Your task to perform on an android device: Open my contact list Image 0: 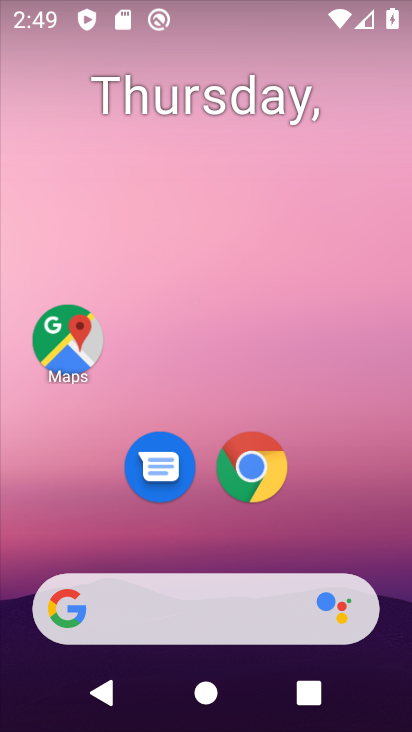
Step 0: drag from (227, 622) to (152, 155)
Your task to perform on an android device: Open my contact list Image 1: 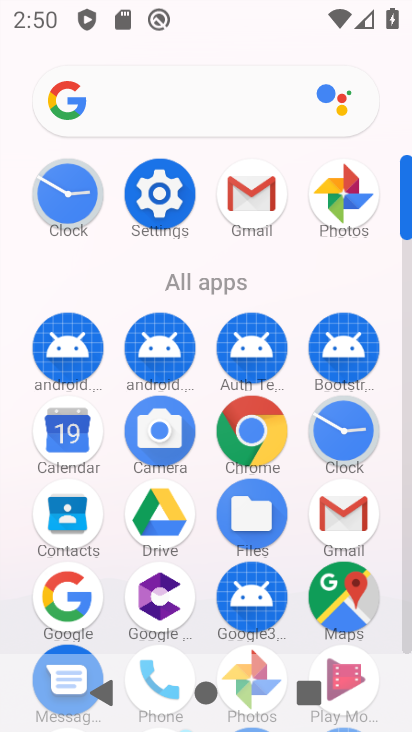
Step 1: click (84, 515)
Your task to perform on an android device: Open my contact list Image 2: 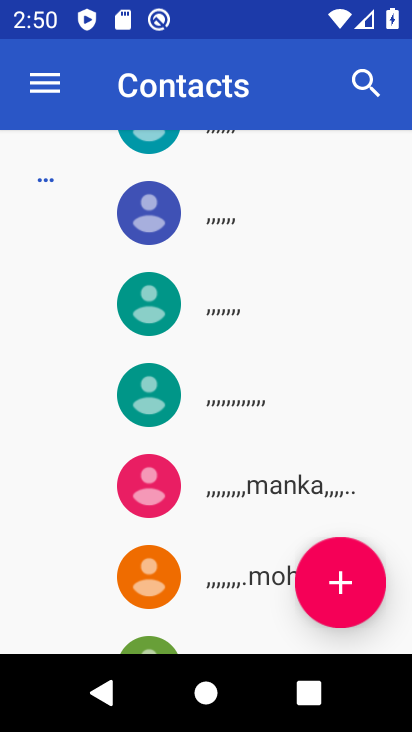
Step 2: task complete